Your task to perform on an android device: turn on the 24-hour format for clock Image 0: 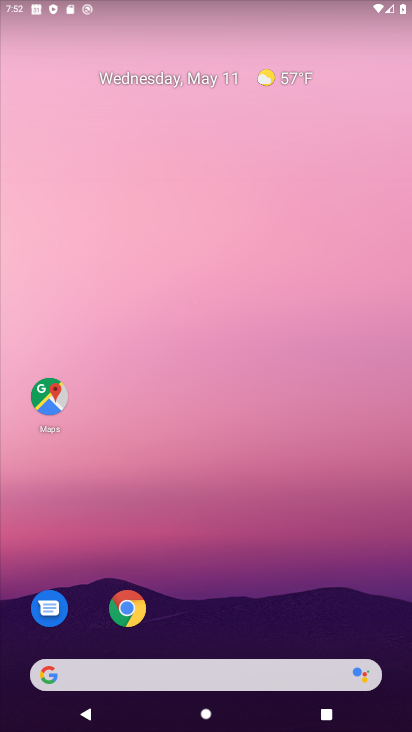
Step 0: drag from (299, 584) to (210, 19)
Your task to perform on an android device: turn on the 24-hour format for clock Image 1: 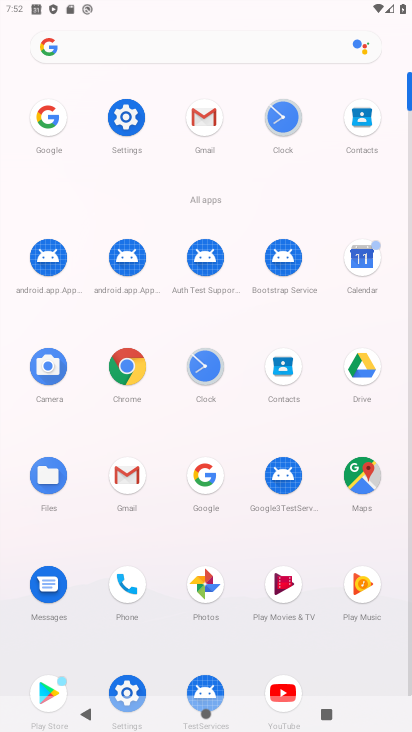
Step 1: click (284, 104)
Your task to perform on an android device: turn on the 24-hour format for clock Image 2: 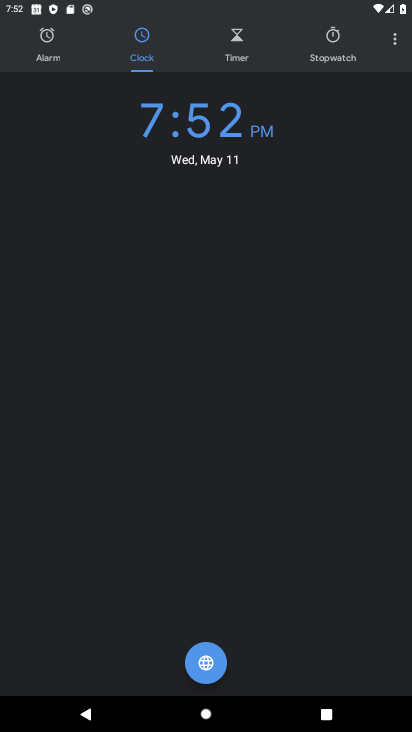
Step 2: click (392, 38)
Your task to perform on an android device: turn on the 24-hour format for clock Image 3: 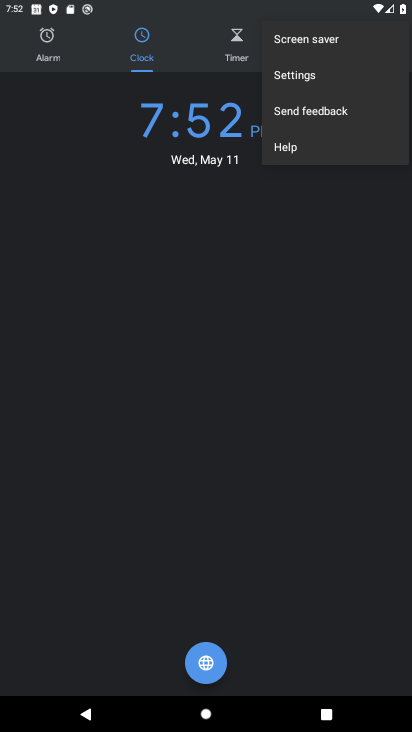
Step 3: click (333, 75)
Your task to perform on an android device: turn on the 24-hour format for clock Image 4: 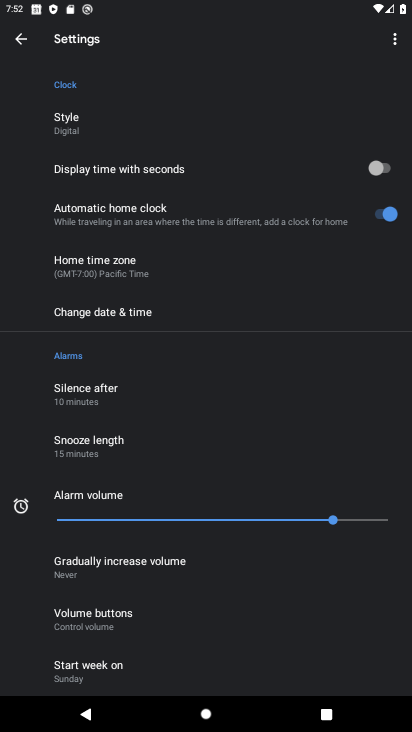
Step 4: drag from (178, 121) to (193, 559)
Your task to perform on an android device: turn on the 24-hour format for clock Image 5: 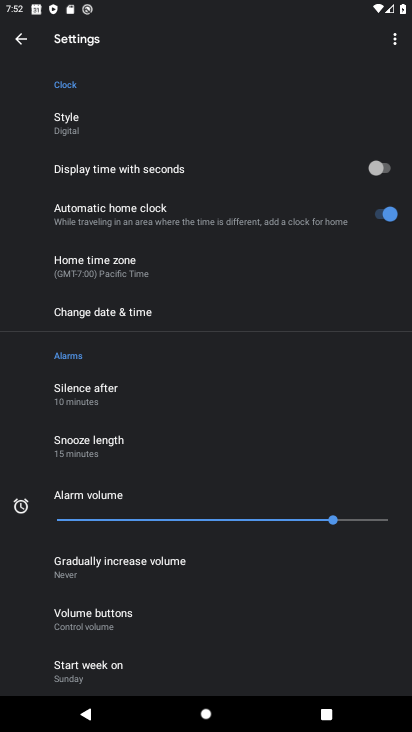
Step 5: click (132, 304)
Your task to perform on an android device: turn on the 24-hour format for clock Image 6: 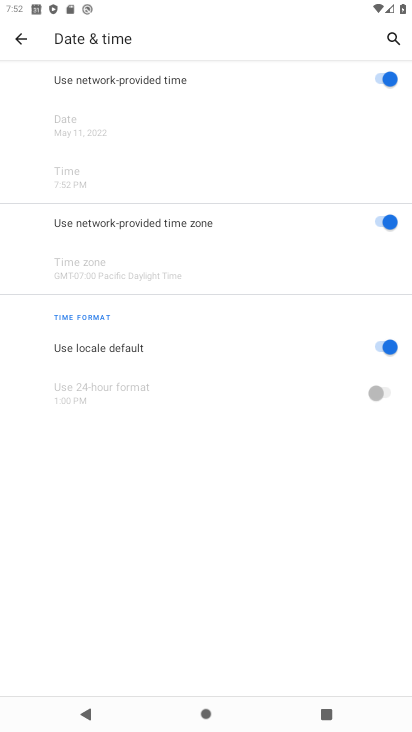
Step 6: click (389, 353)
Your task to perform on an android device: turn on the 24-hour format for clock Image 7: 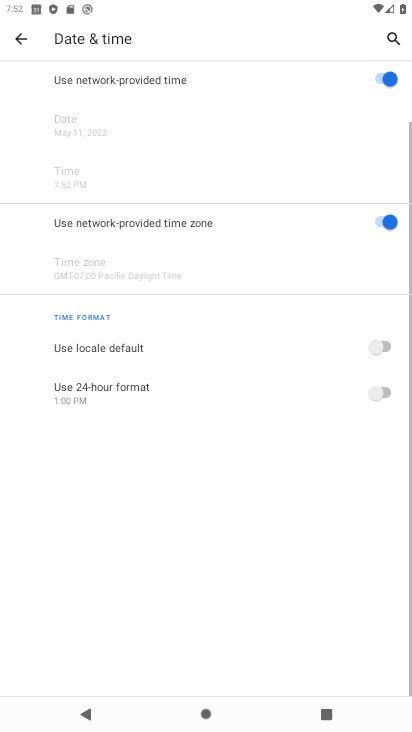
Step 7: click (380, 394)
Your task to perform on an android device: turn on the 24-hour format for clock Image 8: 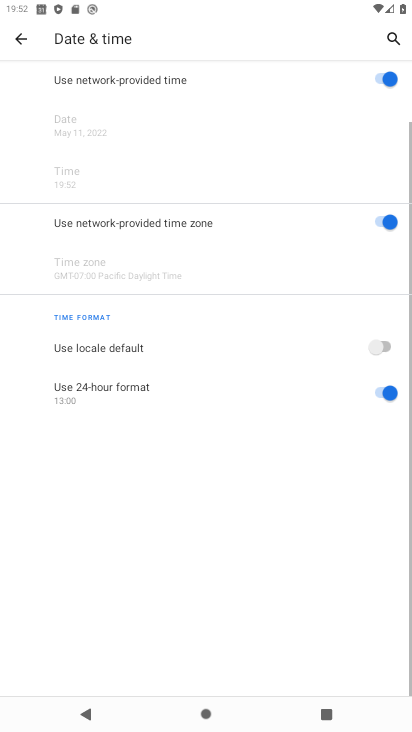
Step 8: task complete